Your task to perform on an android device: Show me the alarms in the clock app Image 0: 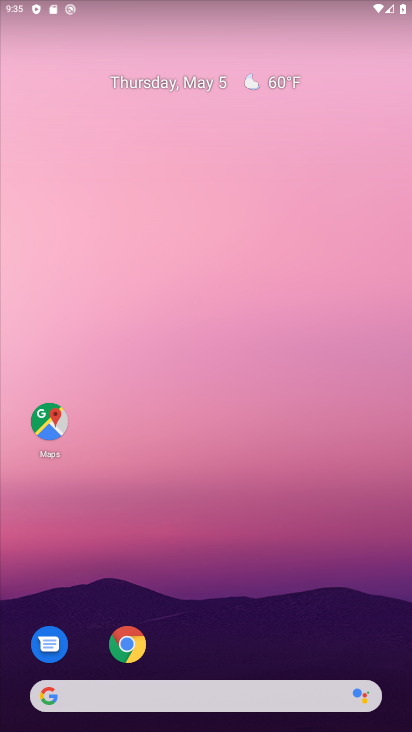
Step 0: drag from (379, 617) to (372, 232)
Your task to perform on an android device: Show me the alarms in the clock app Image 1: 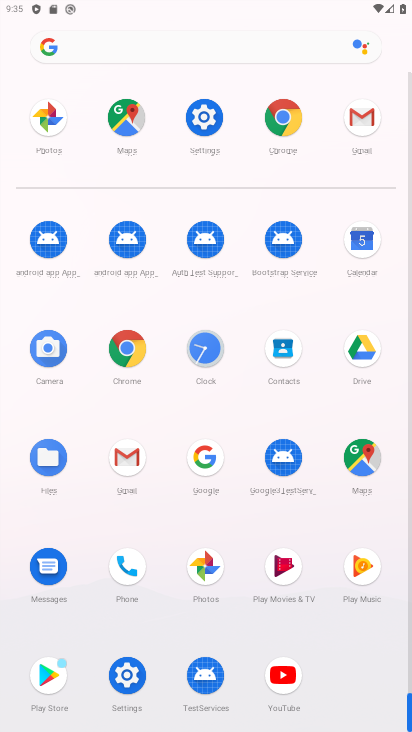
Step 1: click (205, 352)
Your task to perform on an android device: Show me the alarms in the clock app Image 2: 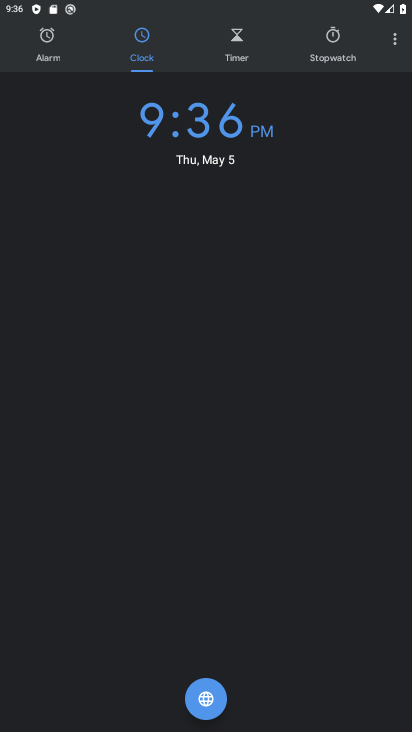
Step 2: click (401, 45)
Your task to perform on an android device: Show me the alarms in the clock app Image 3: 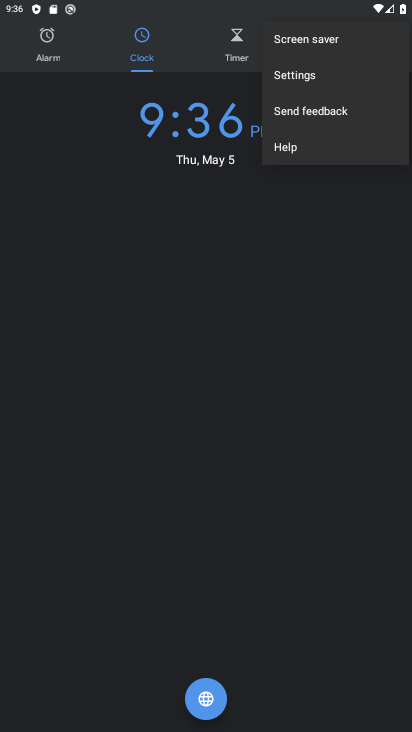
Step 3: click (59, 57)
Your task to perform on an android device: Show me the alarms in the clock app Image 4: 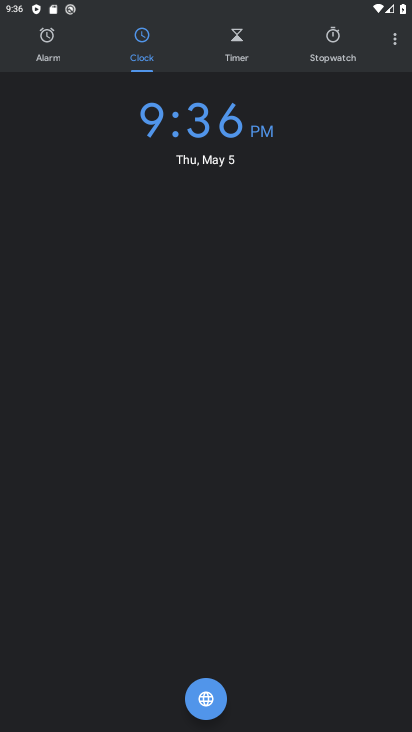
Step 4: click (59, 57)
Your task to perform on an android device: Show me the alarms in the clock app Image 5: 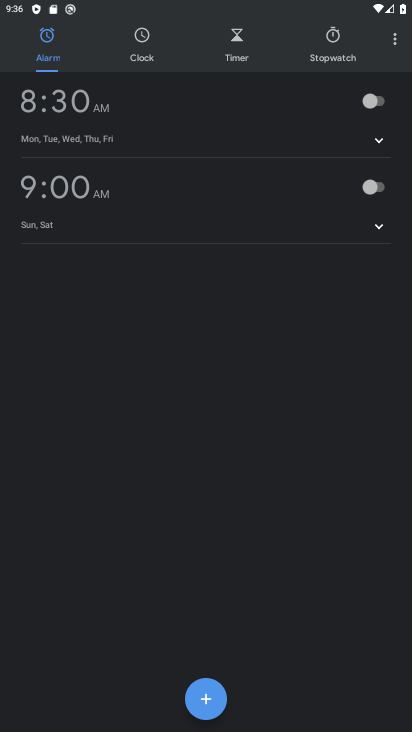
Step 5: task complete